Your task to perform on an android device: turn on wifi Image 0: 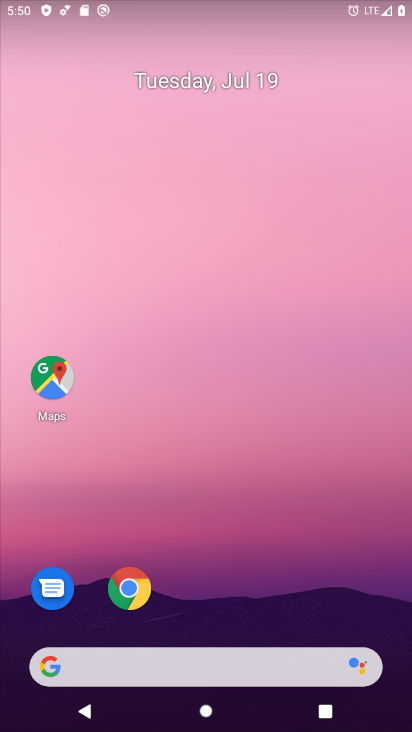
Step 0: drag from (280, 18) to (256, 639)
Your task to perform on an android device: turn on wifi Image 1: 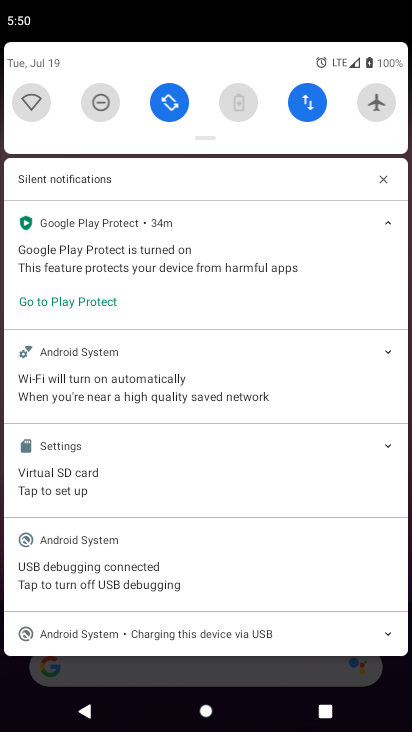
Step 1: click (39, 96)
Your task to perform on an android device: turn on wifi Image 2: 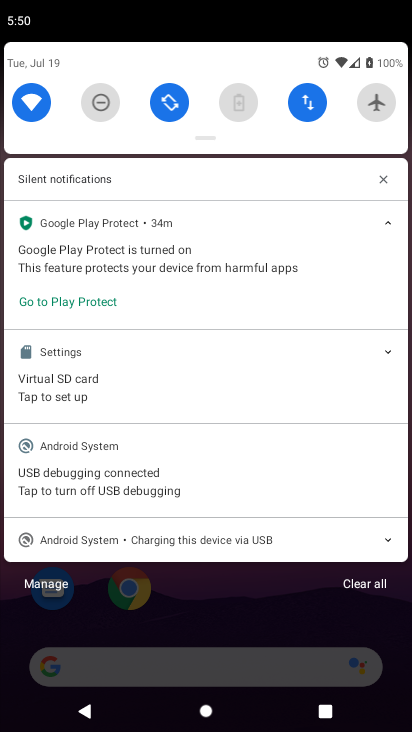
Step 2: task complete